Your task to perform on an android device: change text size in settings app Image 0: 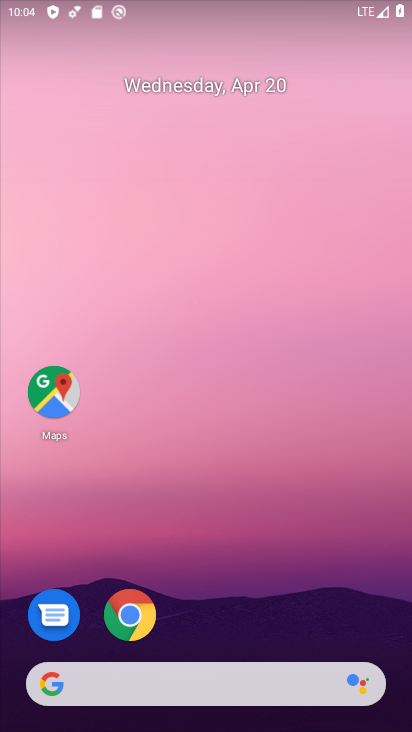
Step 0: drag from (349, 579) to (299, 204)
Your task to perform on an android device: change text size in settings app Image 1: 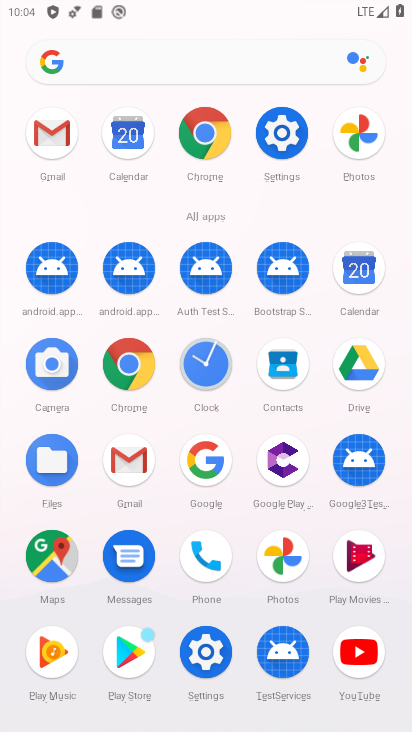
Step 1: click (284, 146)
Your task to perform on an android device: change text size in settings app Image 2: 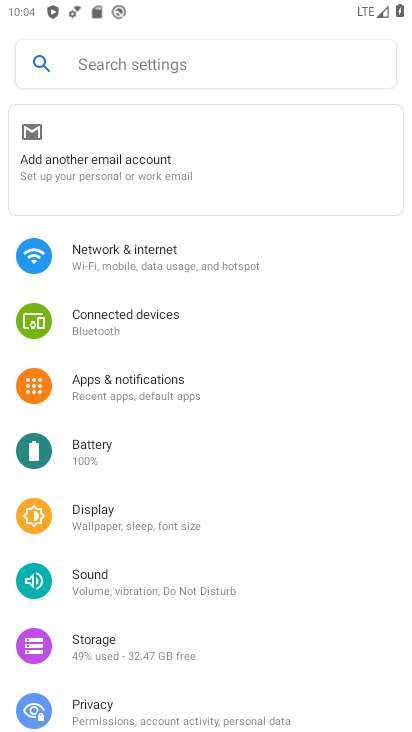
Step 2: click (196, 538)
Your task to perform on an android device: change text size in settings app Image 3: 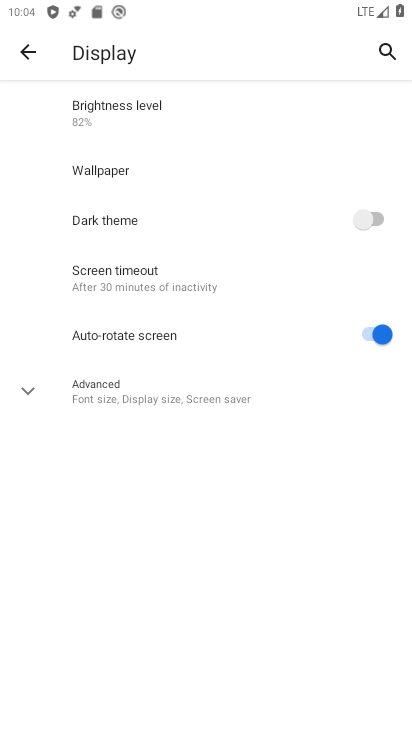
Step 3: click (183, 384)
Your task to perform on an android device: change text size in settings app Image 4: 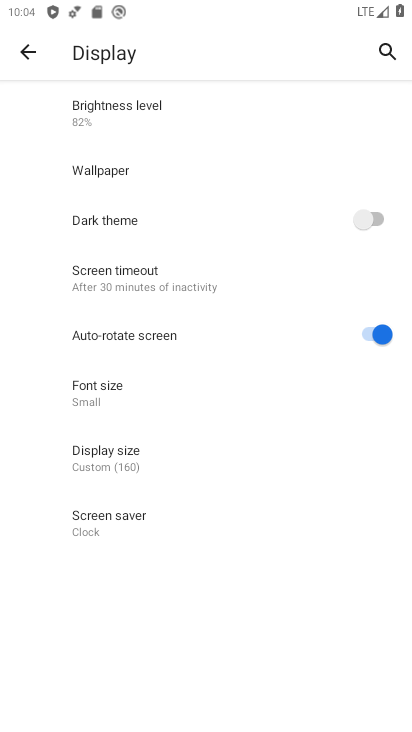
Step 4: click (178, 387)
Your task to perform on an android device: change text size in settings app Image 5: 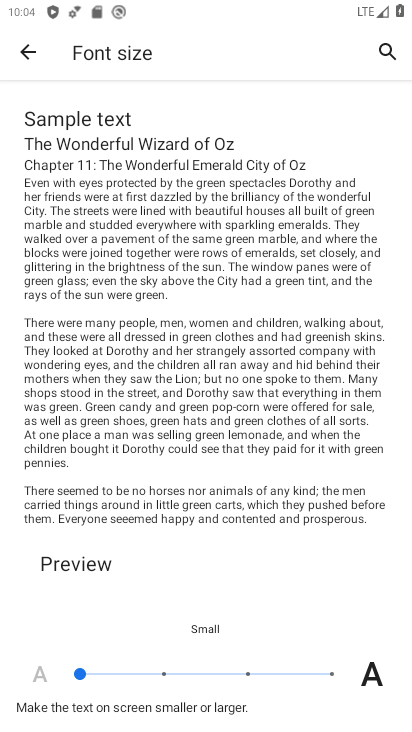
Step 5: click (290, 670)
Your task to perform on an android device: change text size in settings app Image 6: 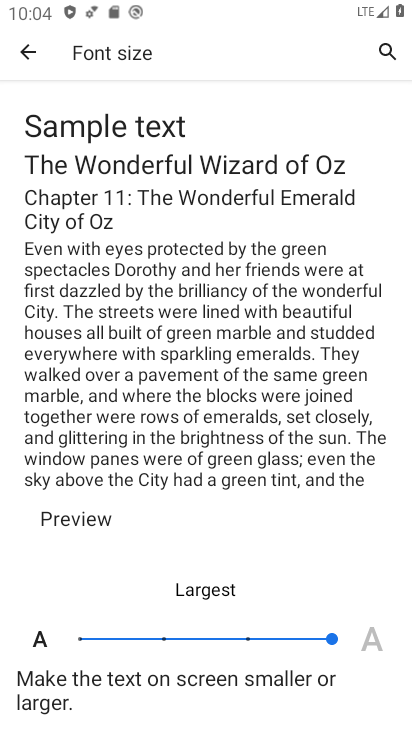
Step 6: task complete